Your task to perform on an android device: Open Youtube and go to the subscriptions tab Image 0: 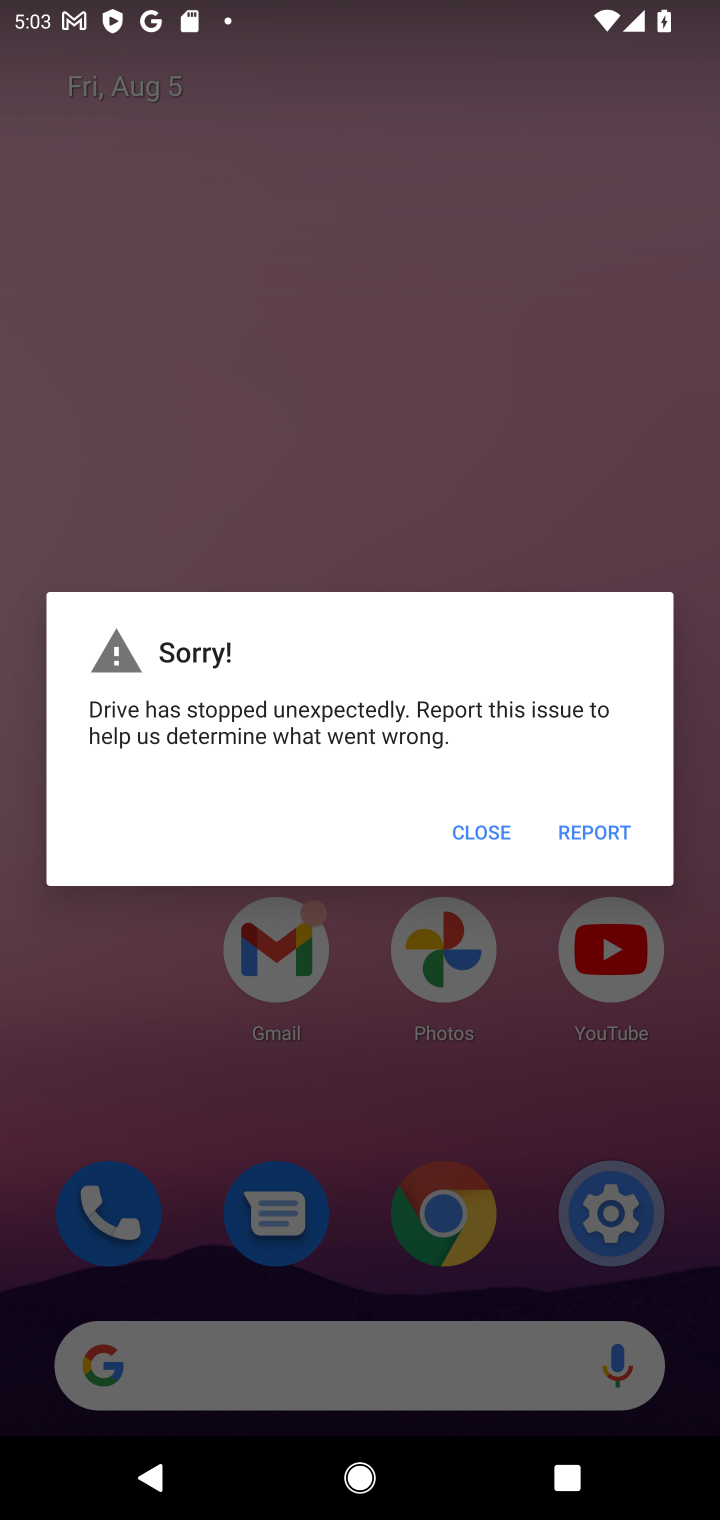
Step 0: click (476, 816)
Your task to perform on an android device: Open Youtube and go to the subscriptions tab Image 1: 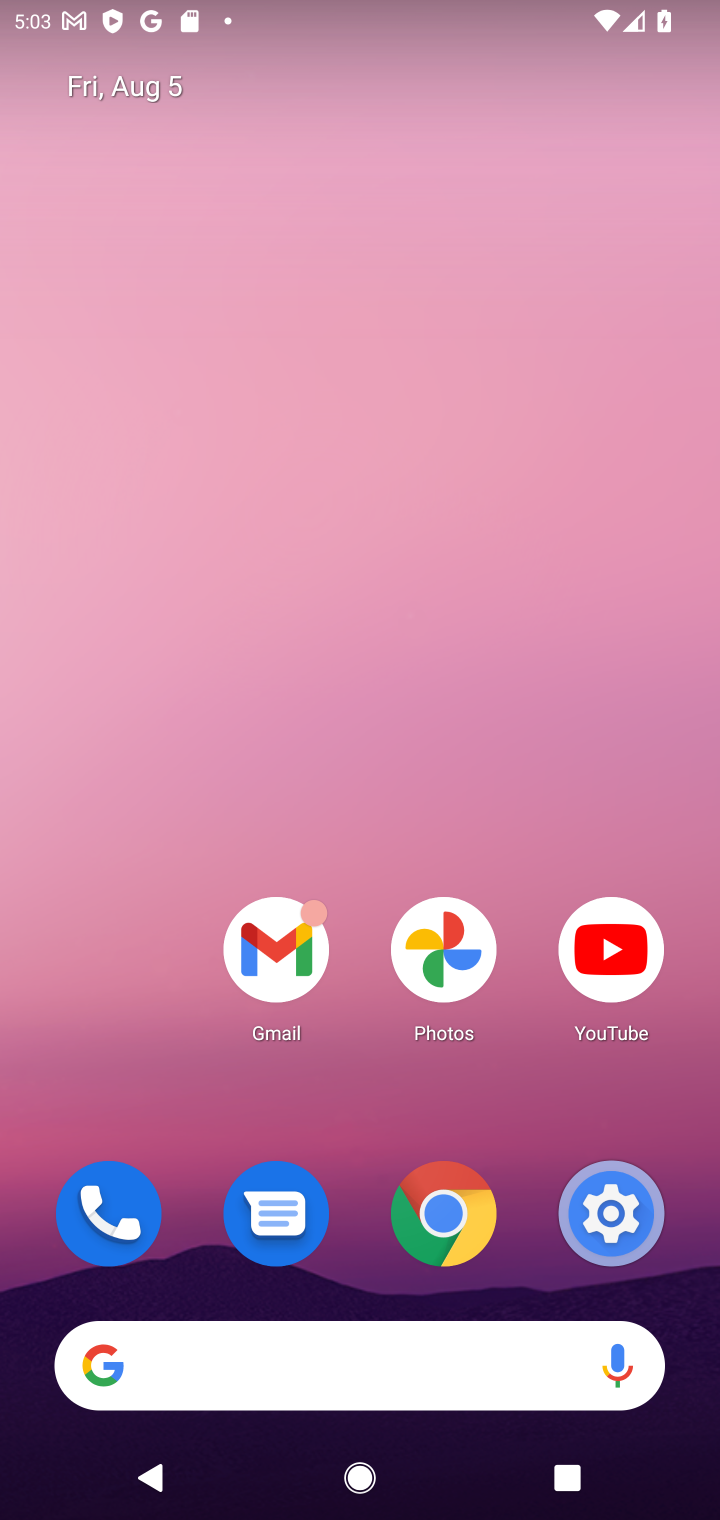
Step 1: click (650, 963)
Your task to perform on an android device: Open Youtube and go to the subscriptions tab Image 2: 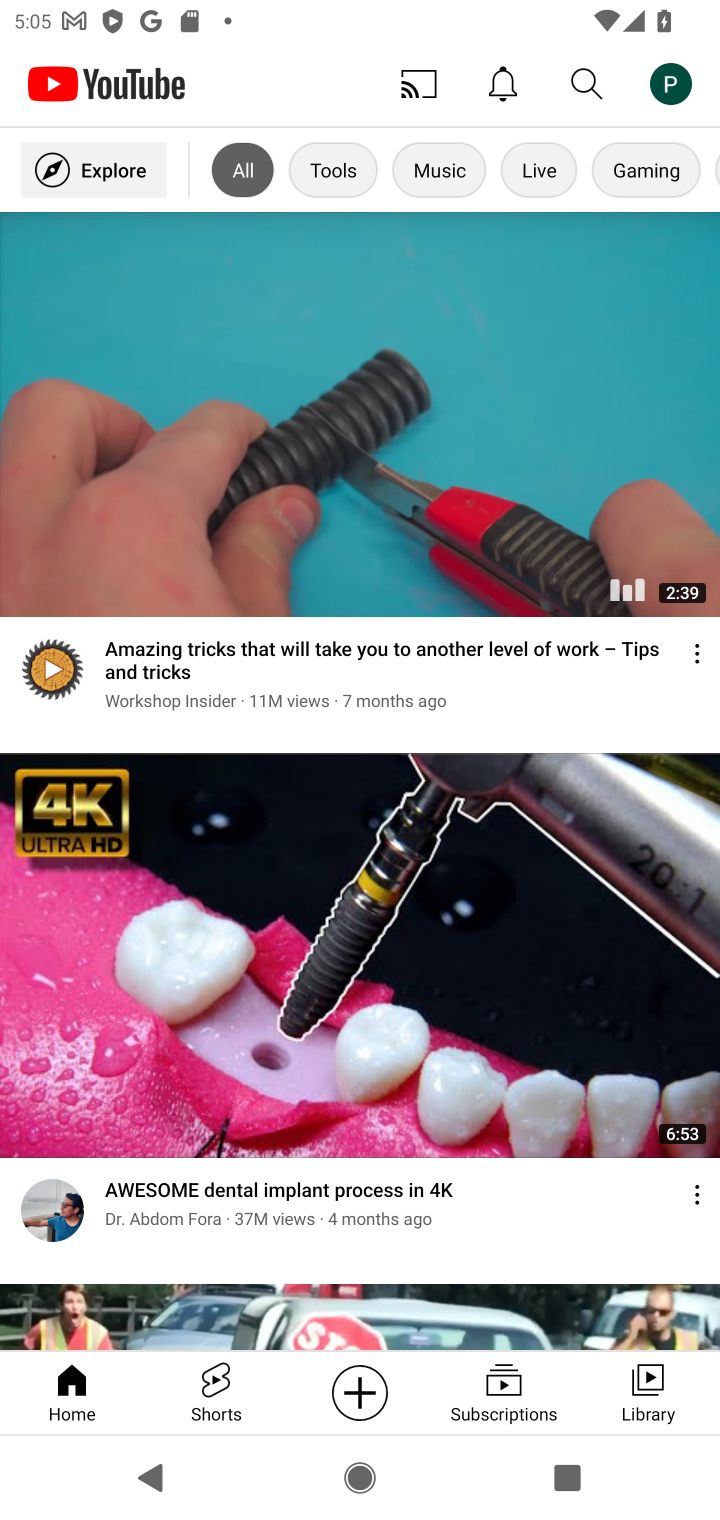
Step 2: click (517, 1374)
Your task to perform on an android device: Open Youtube and go to the subscriptions tab Image 3: 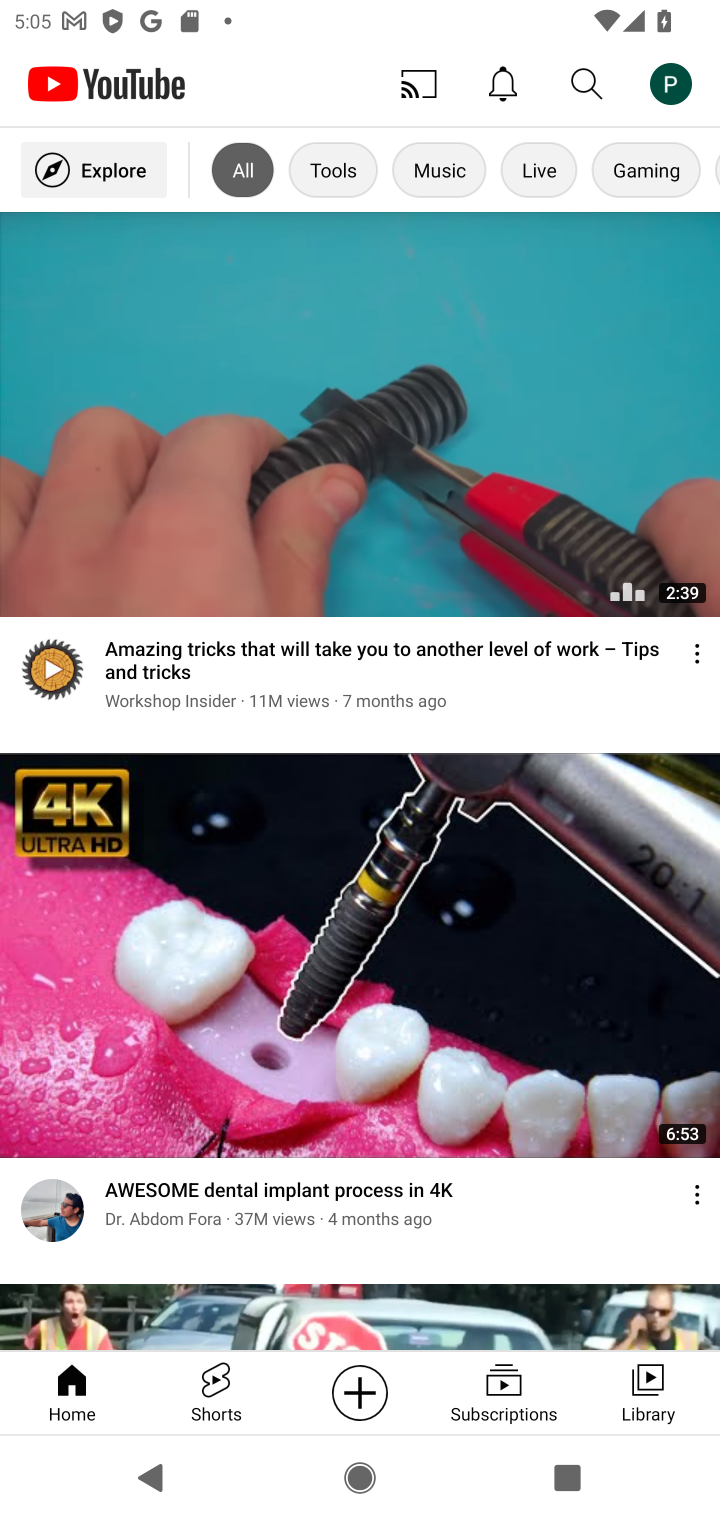
Step 3: task complete